Your task to perform on an android device: move an email to a new category in the gmail app Image 0: 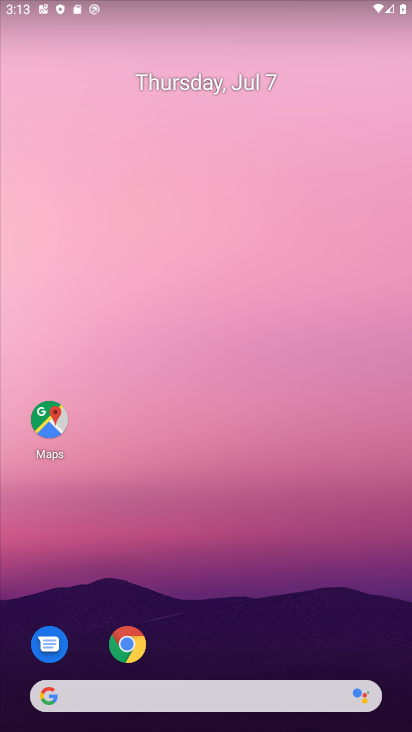
Step 0: drag from (213, 657) to (118, 28)
Your task to perform on an android device: move an email to a new category in the gmail app Image 1: 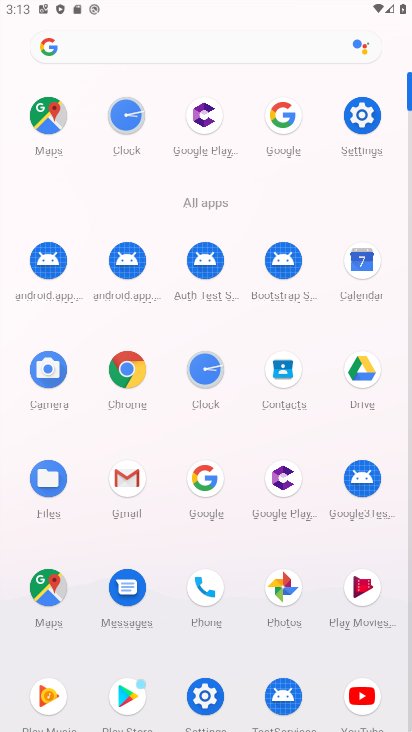
Step 1: click (135, 481)
Your task to perform on an android device: move an email to a new category in the gmail app Image 2: 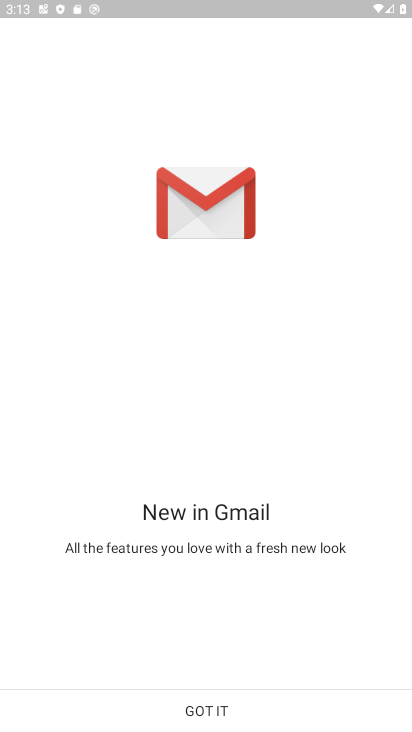
Step 2: click (220, 704)
Your task to perform on an android device: move an email to a new category in the gmail app Image 3: 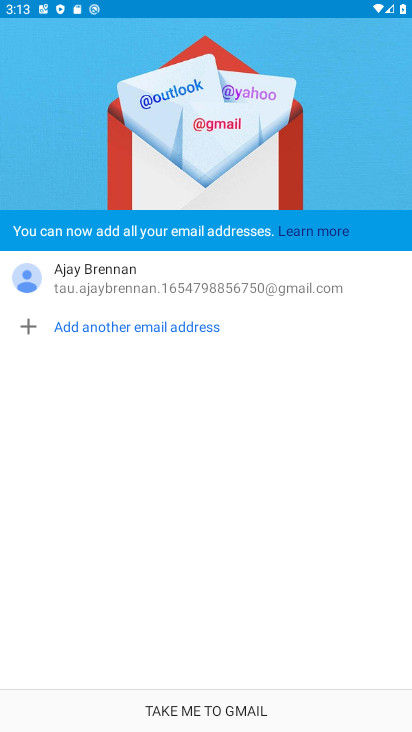
Step 3: click (227, 706)
Your task to perform on an android device: move an email to a new category in the gmail app Image 4: 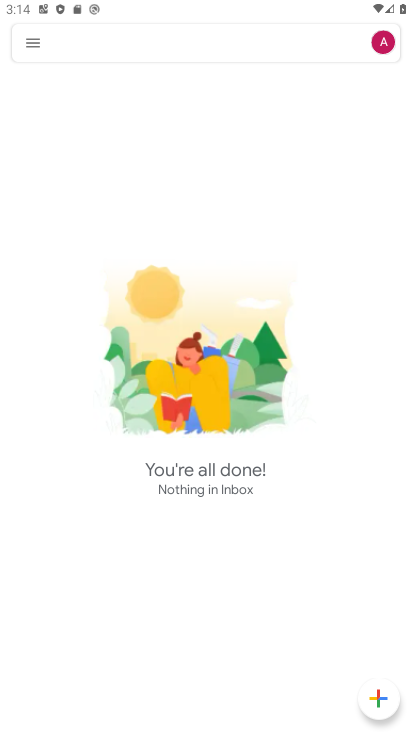
Step 4: task complete